Your task to perform on an android device: see creations saved in the google photos Image 0: 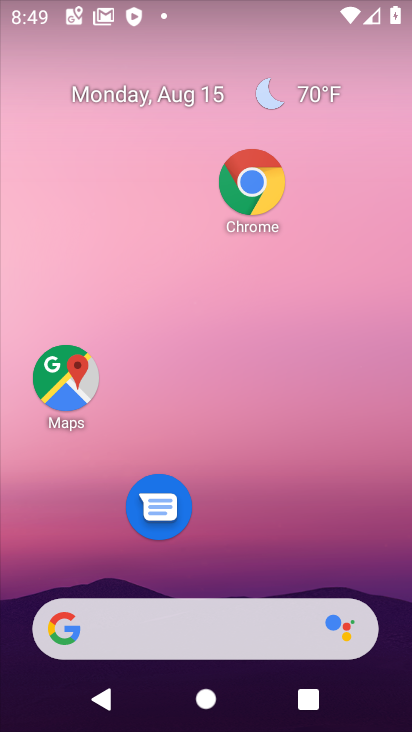
Step 0: drag from (279, 605) to (190, 4)
Your task to perform on an android device: see creations saved in the google photos Image 1: 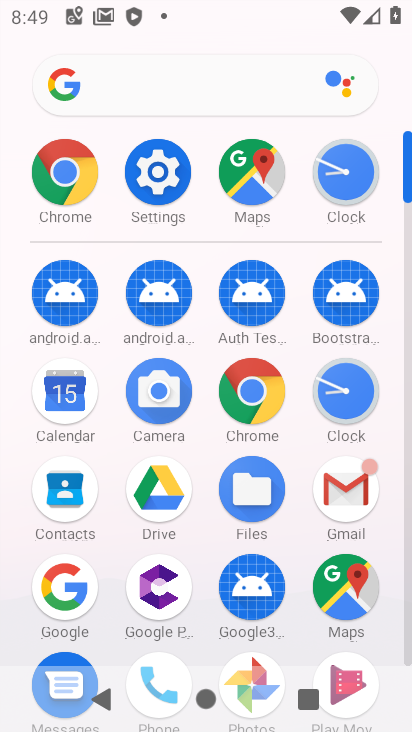
Step 1: click (254, 659)
Your task to perform on an android device: see creations saved in the google photos Image 2: 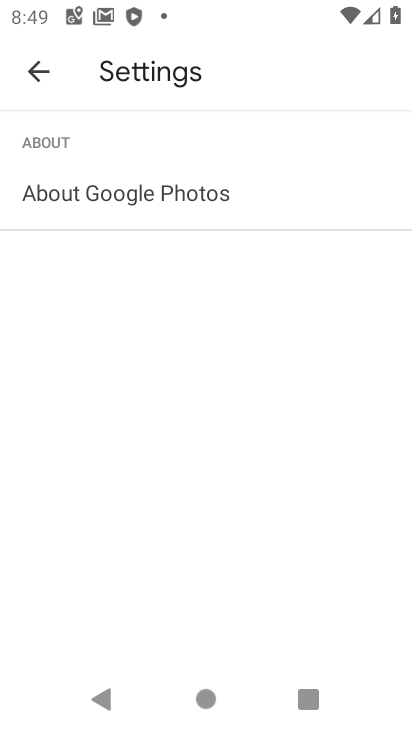
Step 2: click (32, 68)
Your task to perform on an android device: see creations saved in the google photos Image 3: 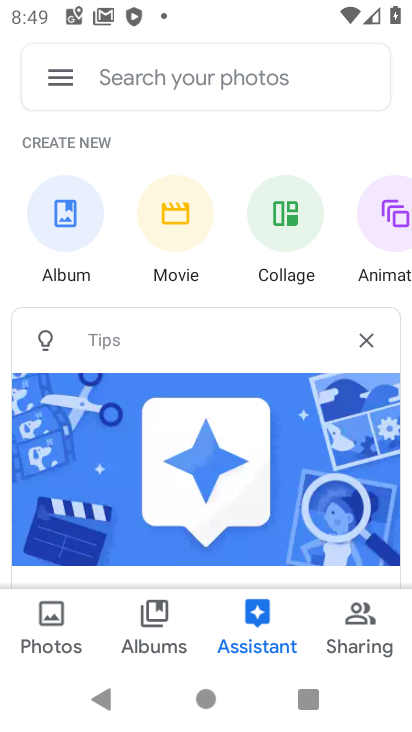
Step 3: click (49, 89)
Your task to perform on an android device: see creations saved in the google photos Image 4: 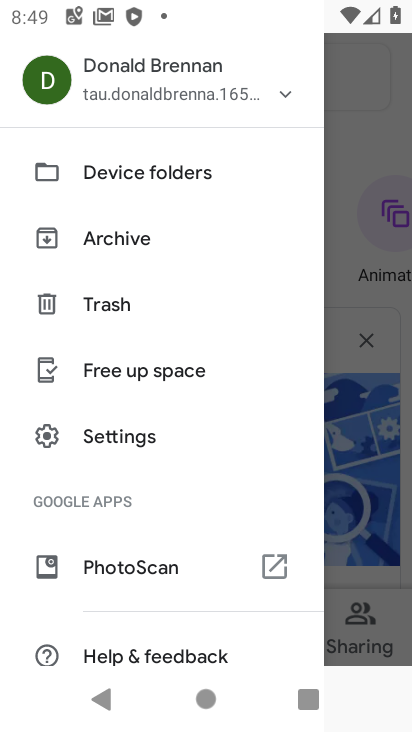
Step 4: click (98, 435)
Your task to perform on an android device: see creations saved in the google photos Image 5: 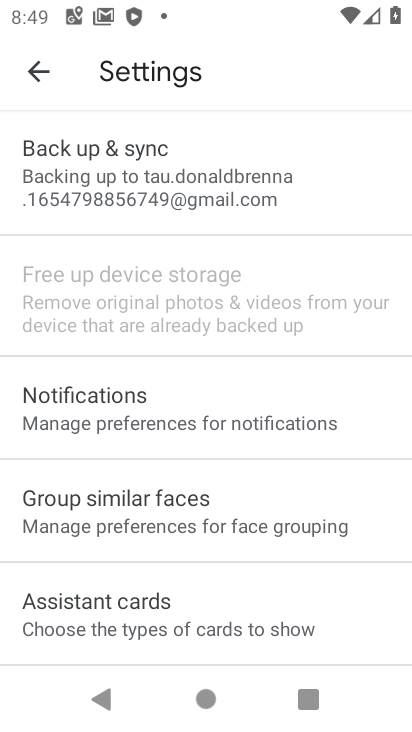
Step 5: click (22, 78)
Your task to perform on an android device: see creations saved in the google photos Image 6: 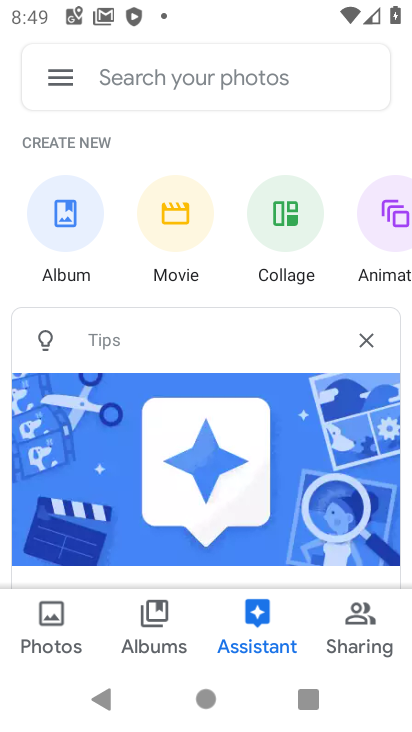
Step 6: click (50, 92)
Your task to perform on an android device: see creations saved in the google photos Image 7: 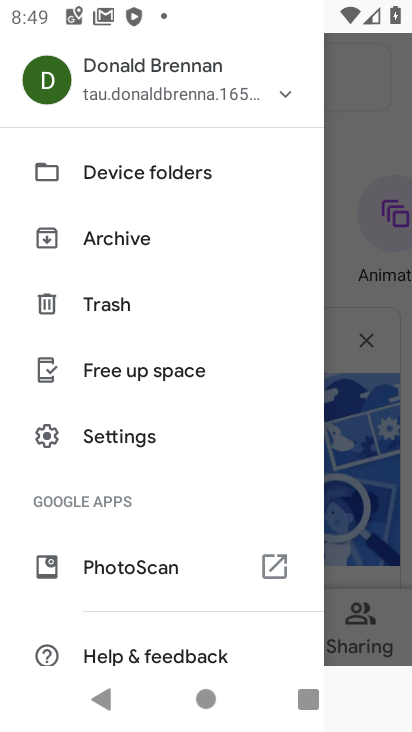
Step 7: click (89, 240)
Your task to perform on an android device: see creations saved in the google photos Image 8: 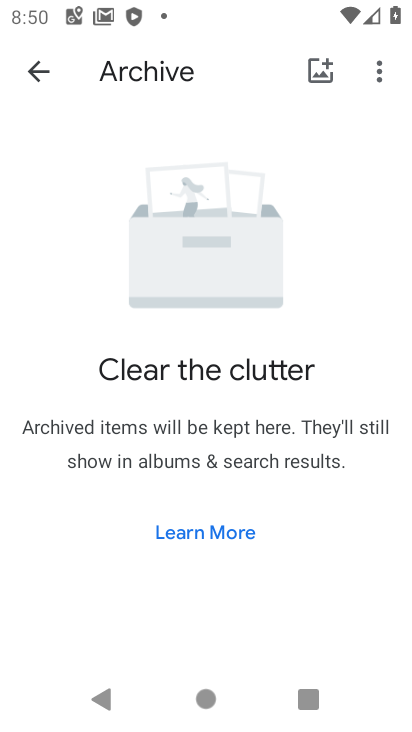
Step 8: task complete